Your task to perform on an android device: Open display settings Image 0: 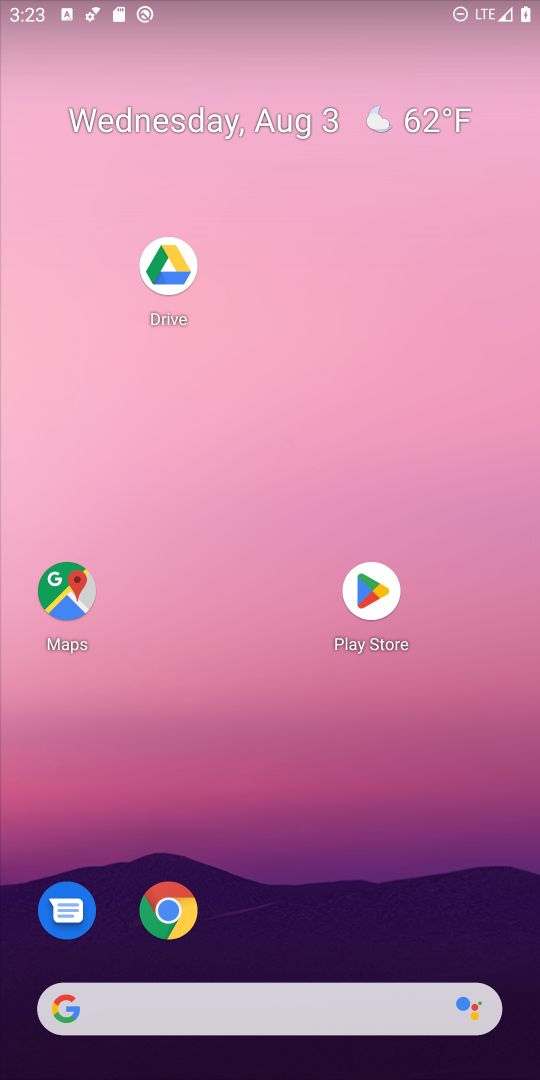
Step 0: drag from (393, 889) to (480, 3)
Your task to perform on an android device: Open display settings Image 1: 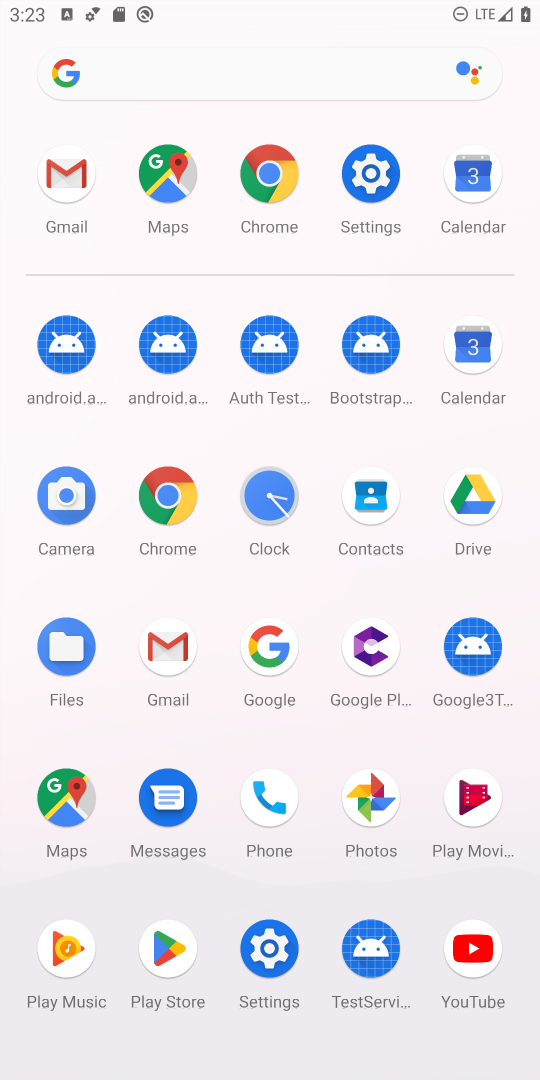
Step 1: click (370, 171)
Your task to perform on an android device: Open display settings Image 2: 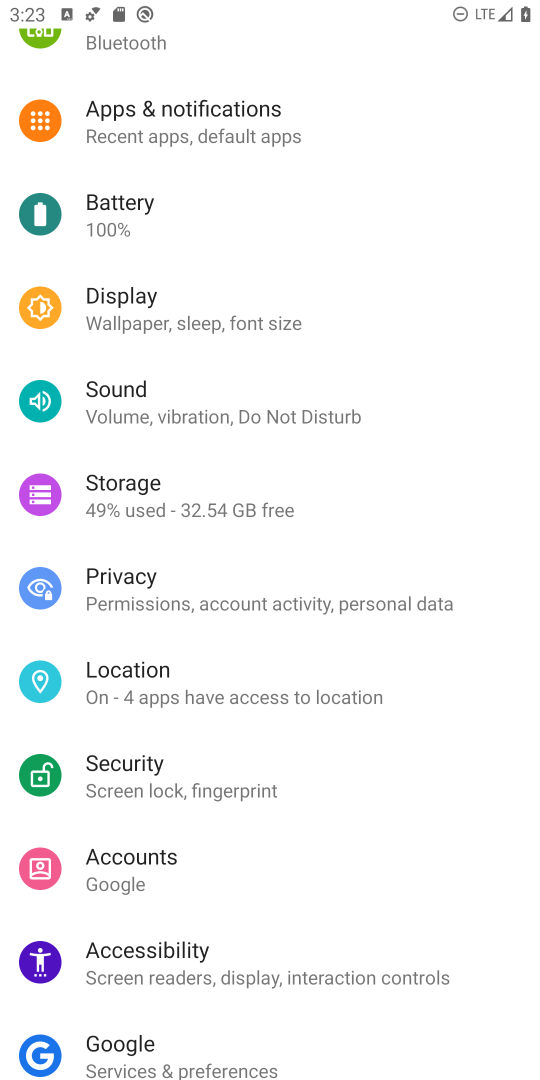
Step 2: click (168, 317)
Your task to perform on an android device: Open display settings Image 3: 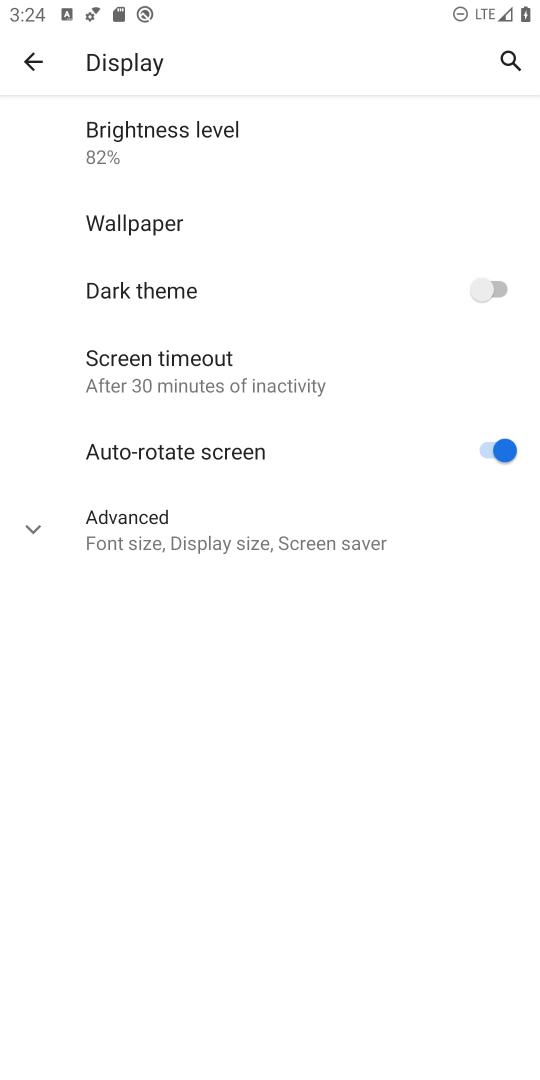
Step 3: task complete